Your task to perform on an android device: turn off smart reply in the gmail app Image 0: 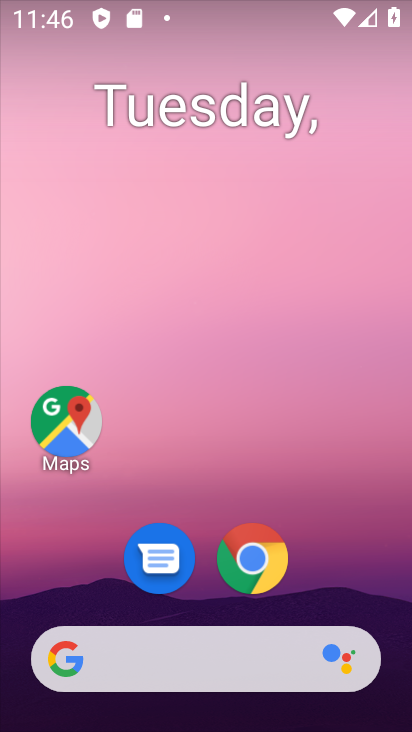
Step 0: drag from (243, 631) to (233, 174)
Your task to perform on an android device: turn off smart reply in the gmail app Image 1: 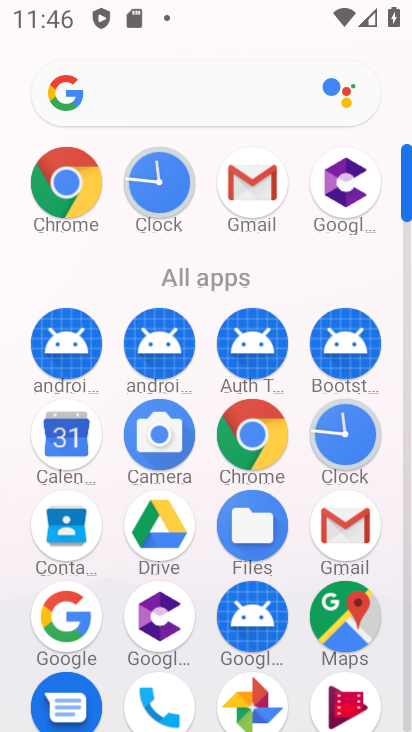
Step 1: click (363, 543)
Your task to perform on an android device: turn off smart reply in the gmail app Image 2: 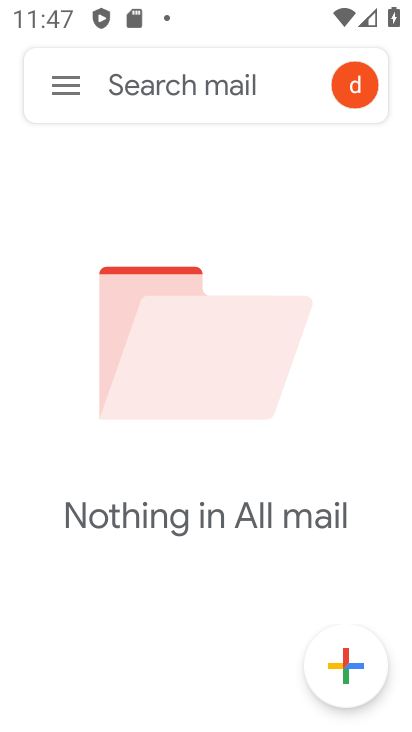
Step 2: click (72, 93)
Your task to perform on an android device: turn off smart reply in the gmail app Image 3: 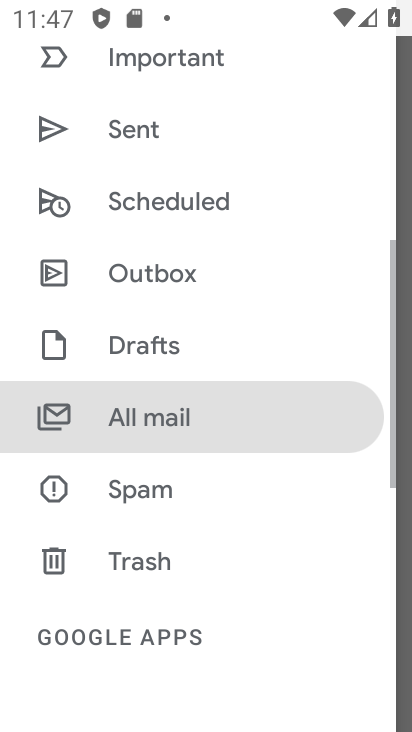
Step 3: drag from (157, 563) to (193, 225)
Your task to perform on an android device: turn off smart reply in the gmail app Image 4: 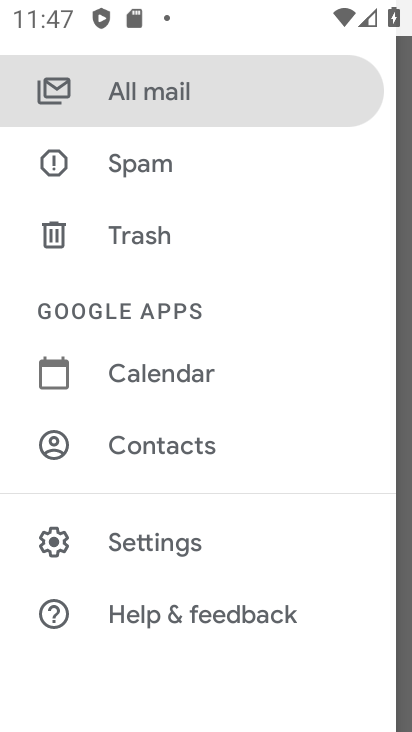
Step 4: click (183, 541)
Your task to perform on an android device: turn off smart reply in the gmail app Image 5: 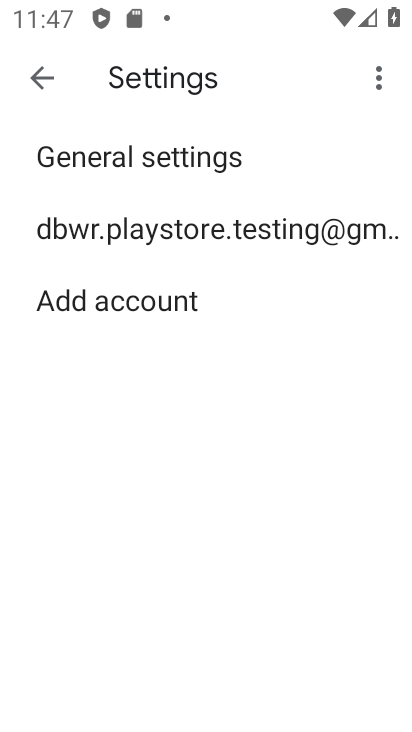
Step 5: click (231, 234)
Your task to perform on an android device: turn off smart reply in the gmail app Image 6: 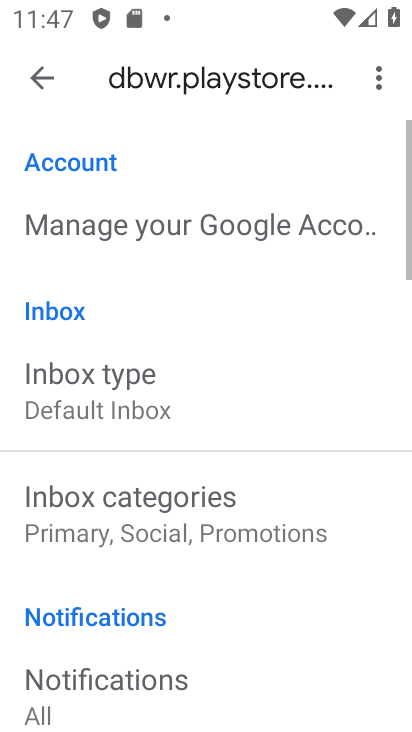
Step 6: drag from (205, 561) to (264, 207)
Your task to perform on an android device: turn off smart reply in the gmail app Image 7: 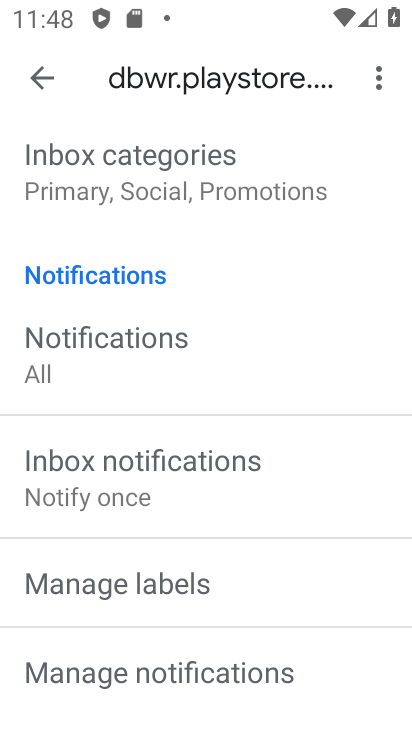
Step 7: drag from (169, 602) to (226, 250)
Your task to perform on an android device: turn off smart reply in the gmail app Image 8: 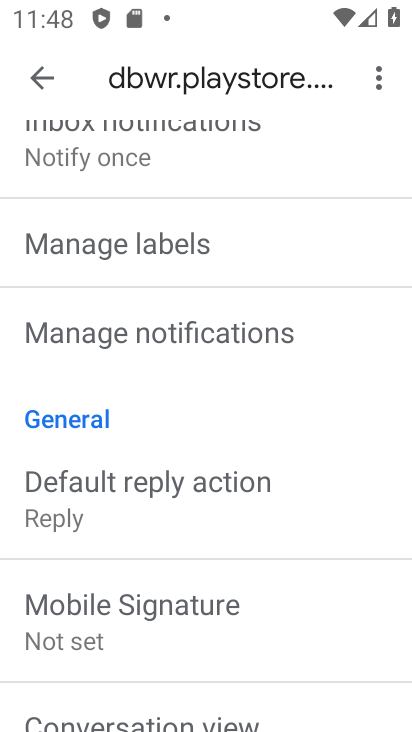
Step 8: drag from (222, 513) to (282, 160)
Your task to perform on an android device: turn off smart reply in the gmail app Image 9: 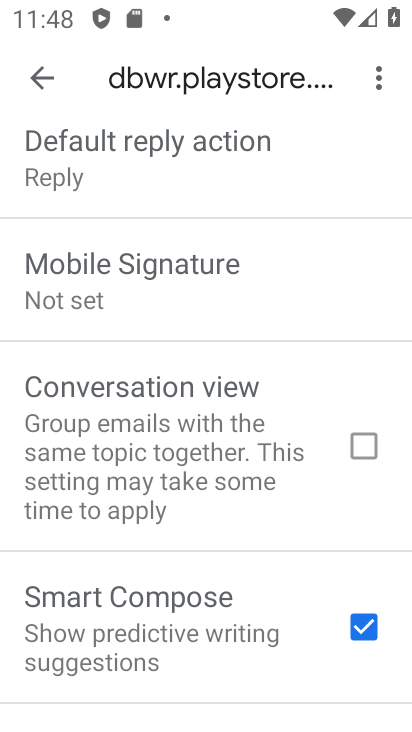
Step 9: drag from (224, 528) to (270, 299)
Your task to perform on an android device: turn off smart reply in the gmail app Image 10: 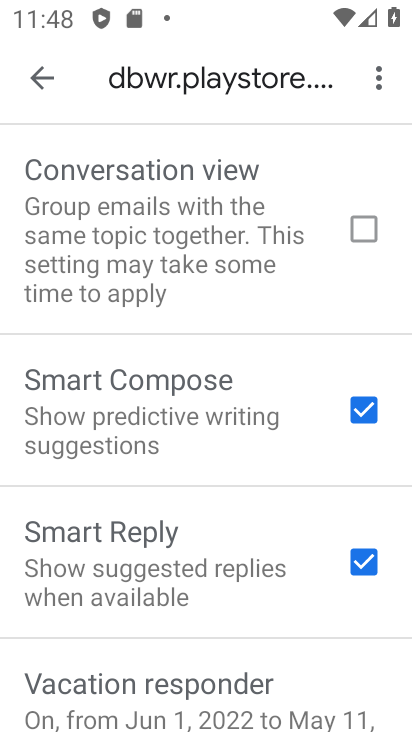
Step 10: click (366, 559)
Your task to perform on an android device: turn off smart reply in the gmail app Image 11: 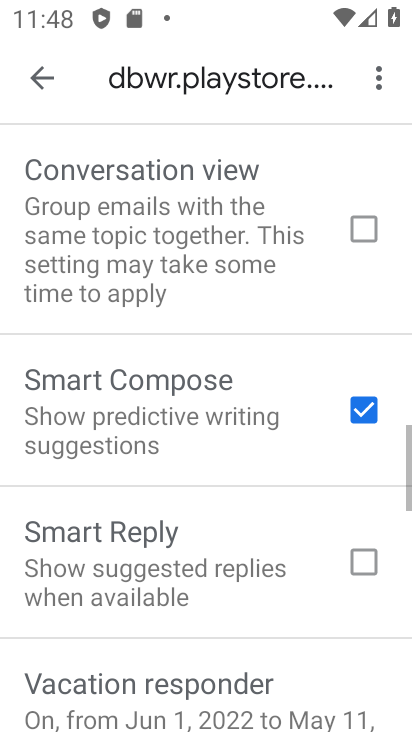
Step 11: task complete